Your task to perform on an android device: Search for usb-a on newegg.com, select the first entry, and add it to the cart. Image 0: 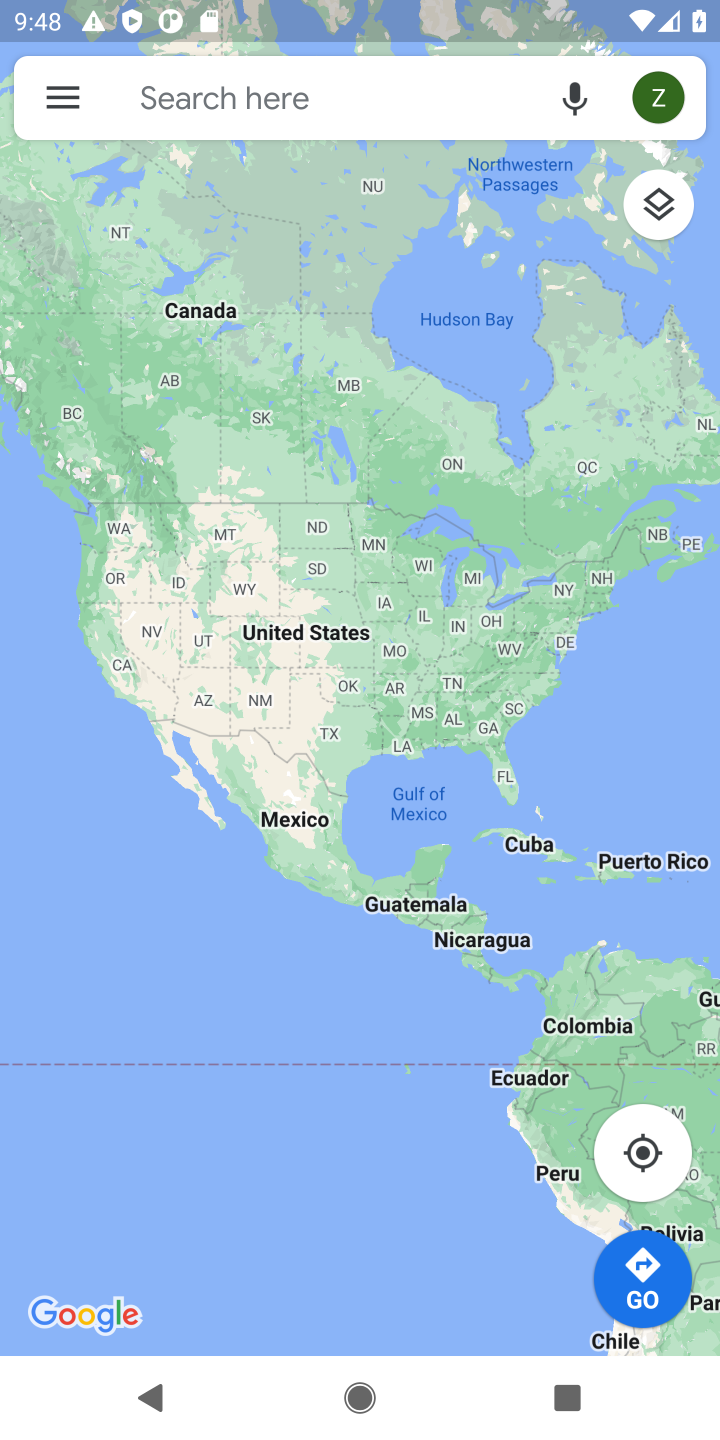
Step 0: press home button
Your task to perform on an android device: Search for usb-a on newegg.com, select the first entry, and add it to the cart. Image 1: 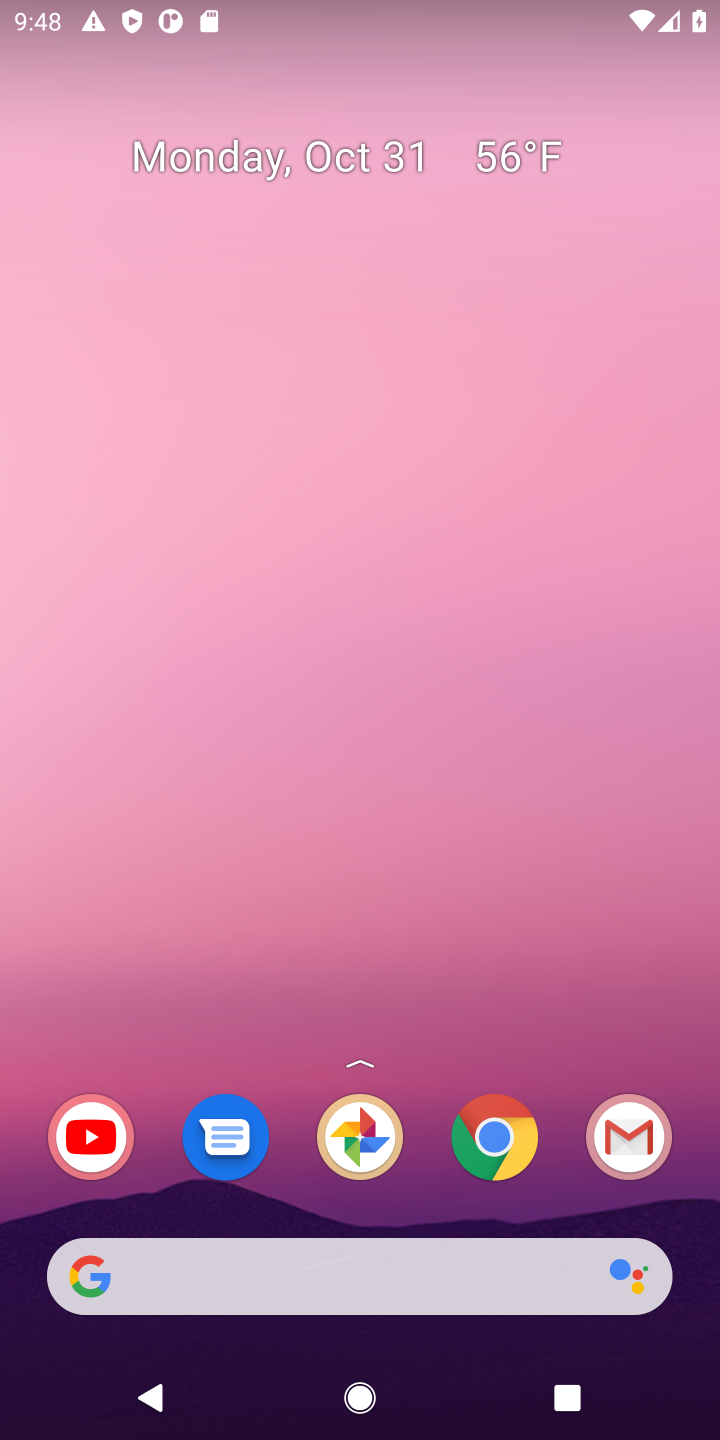
Step 1: click (495, 1138)
Your task to perform on an android device: Search for usb-a on newegg.com, select the first entry, and add it to the cart. Image 2: 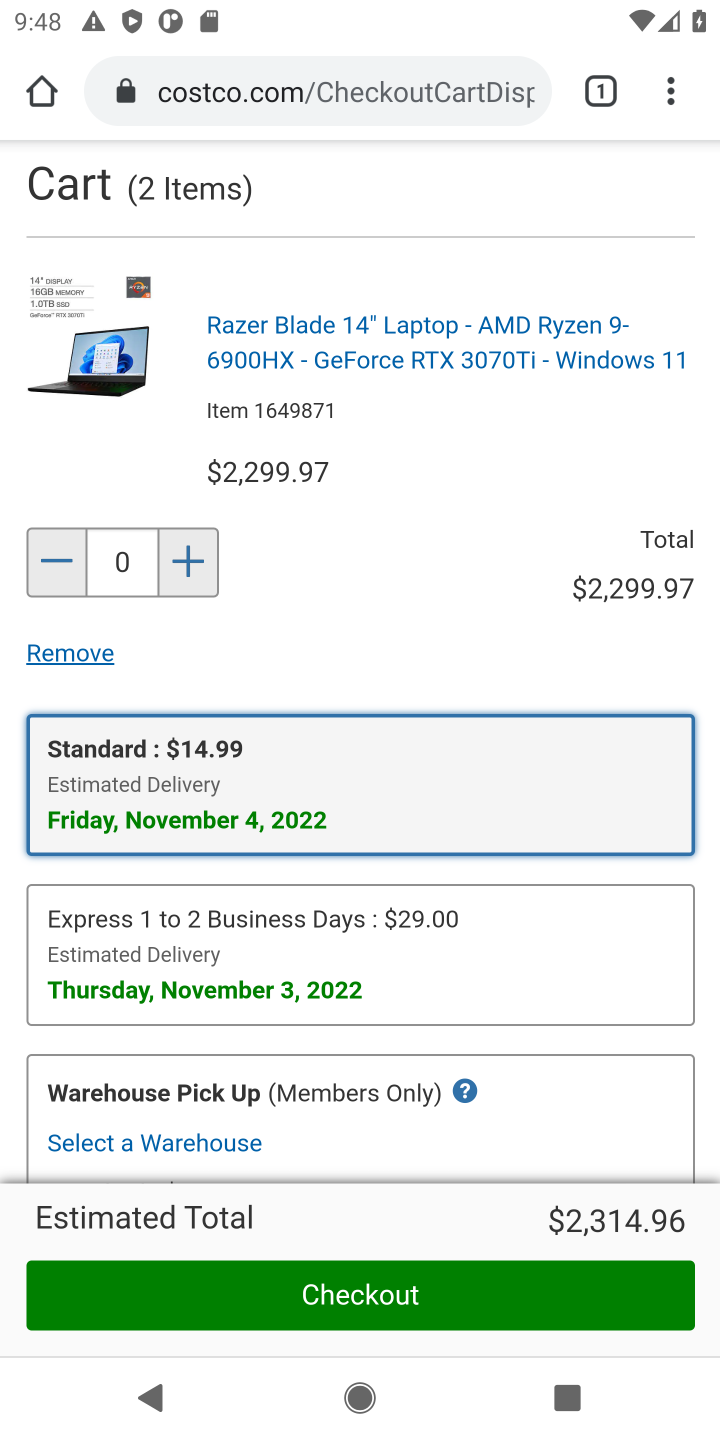
Step 2: click (255, 94)
Your task to perform on an android device: Search for usb-a on newegg.com, select the first entry, and add it to the cart. Image 3: 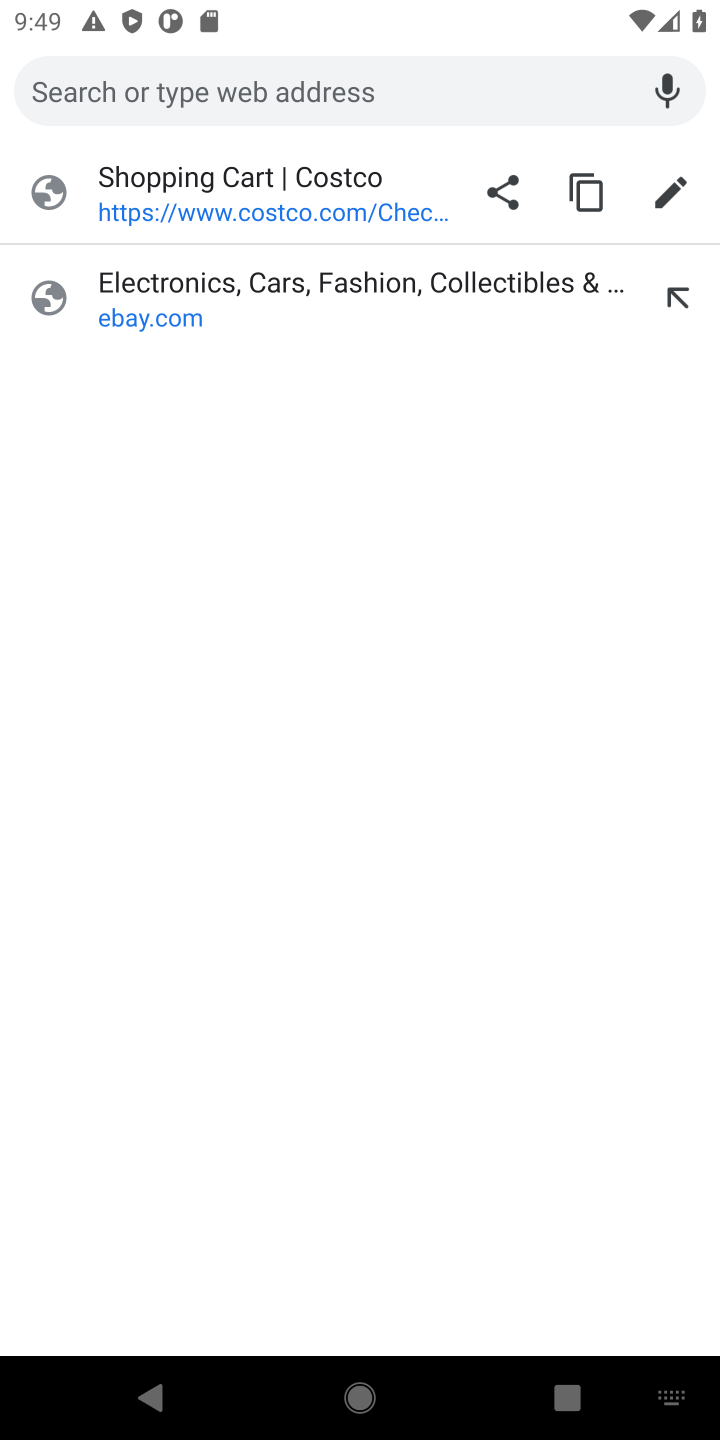
Step 3: type "newegg.com"
Your task to perform on an android device: Search for usb-a on newegg.com, select the first entry, and add it to the cart. Image 4: 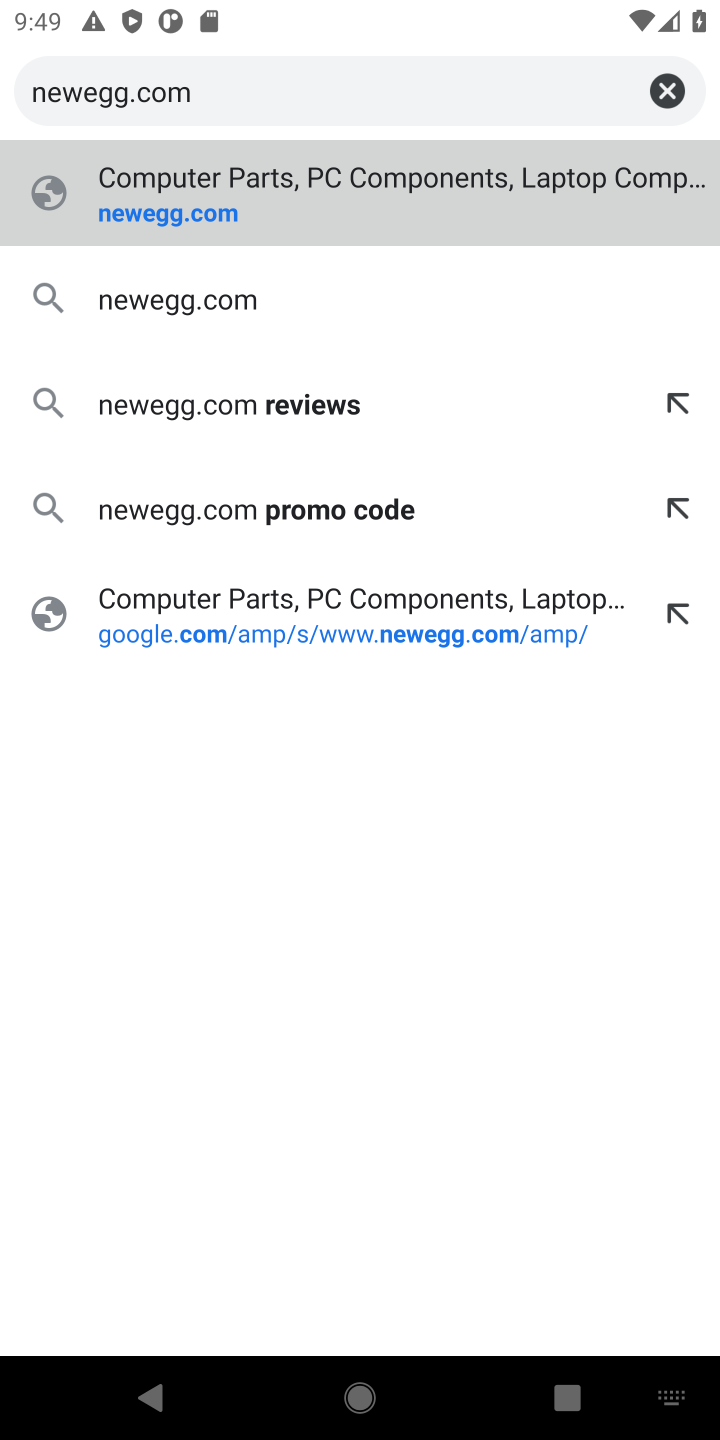
Step 4: click (155, 302)
Your task to perform on an android device: Search for usb-a on newegg.com, select the first entry, and add it to the cart. Image 5: 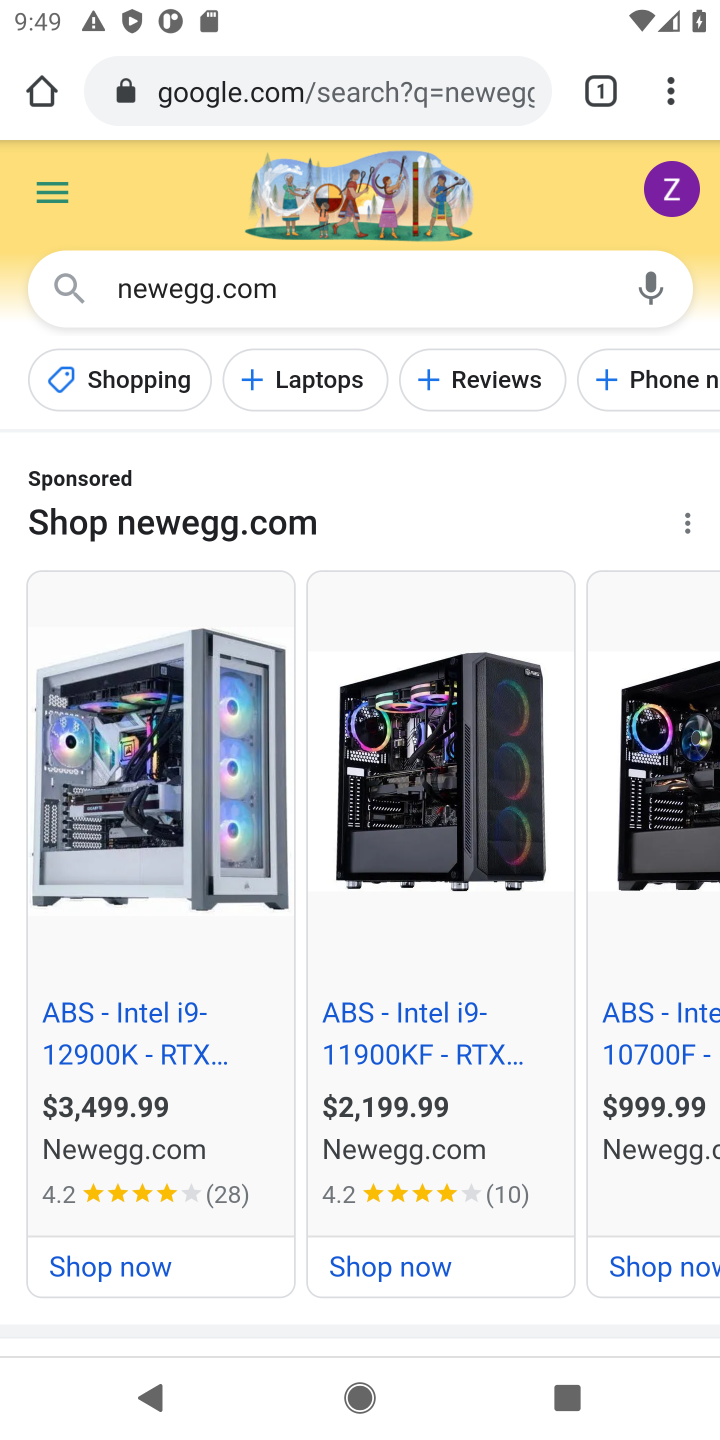
Step 5: drag from (305, 864) to (374, 245)
Your task to perform on an android device: Search for usb-a on newegg.com, select the first entry, and add it to the cart. Image 6: 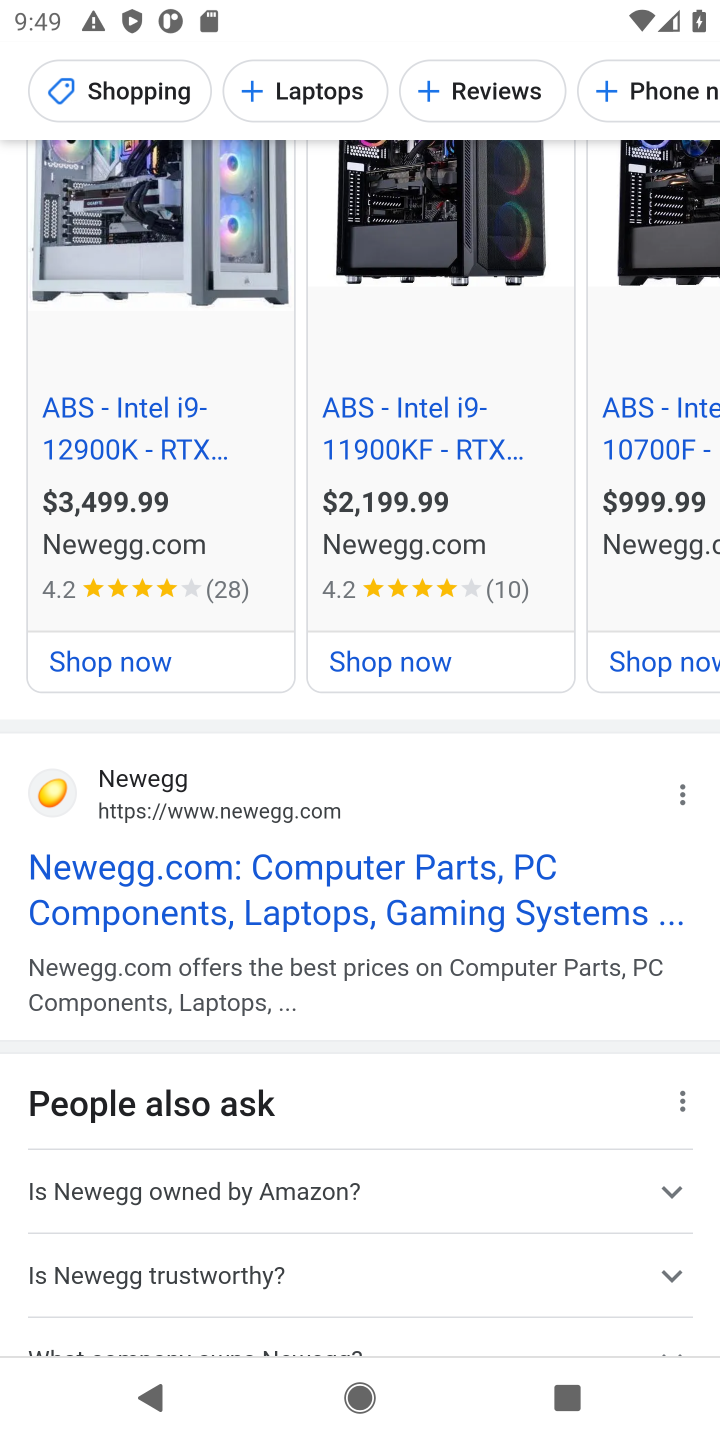
Step 6: click (294, 899)
Your task to perform on an android device: Search for usb-a on newegg.com, select the first entry, and add it to the cart. Image 7: 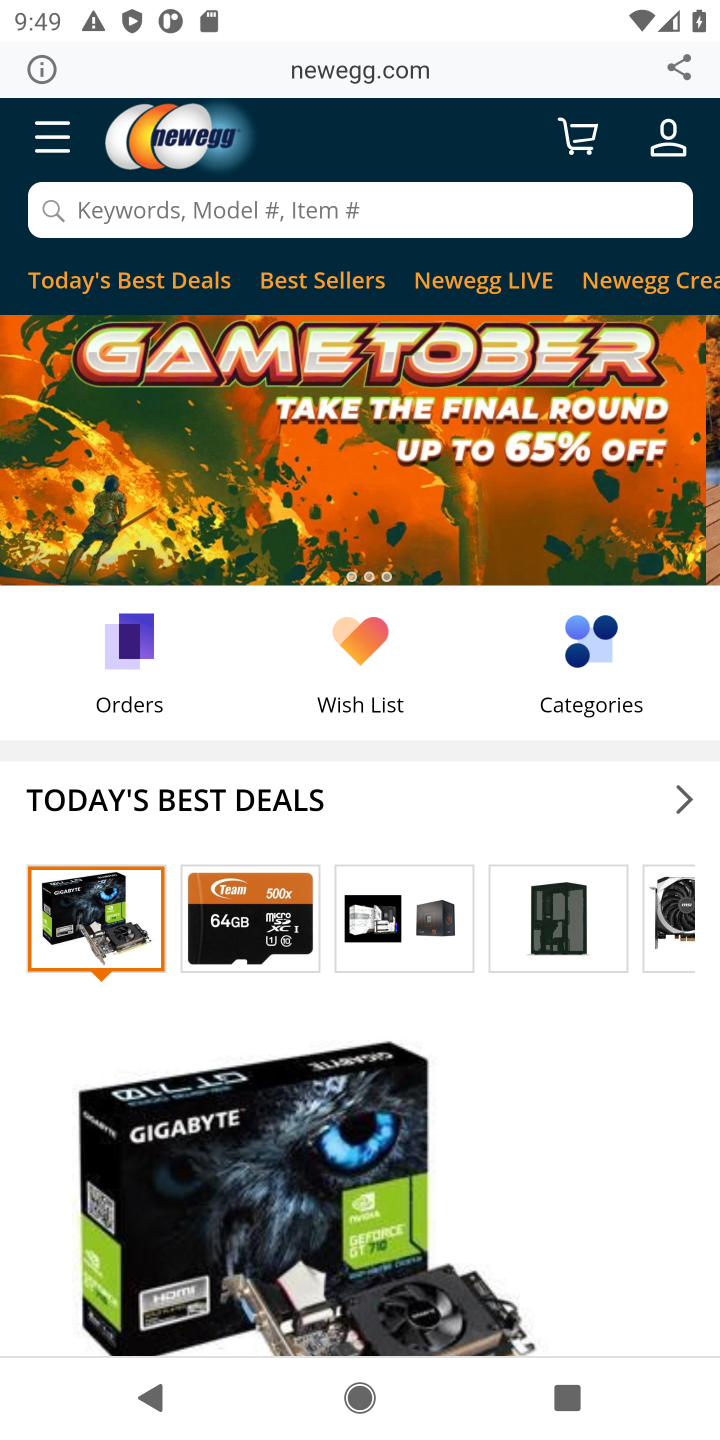
Step 7: click (367, 208)
Your task to perform on an android device: Search for usb-a on newegg.com, select the first entry, and add it to the cart. Image 8: 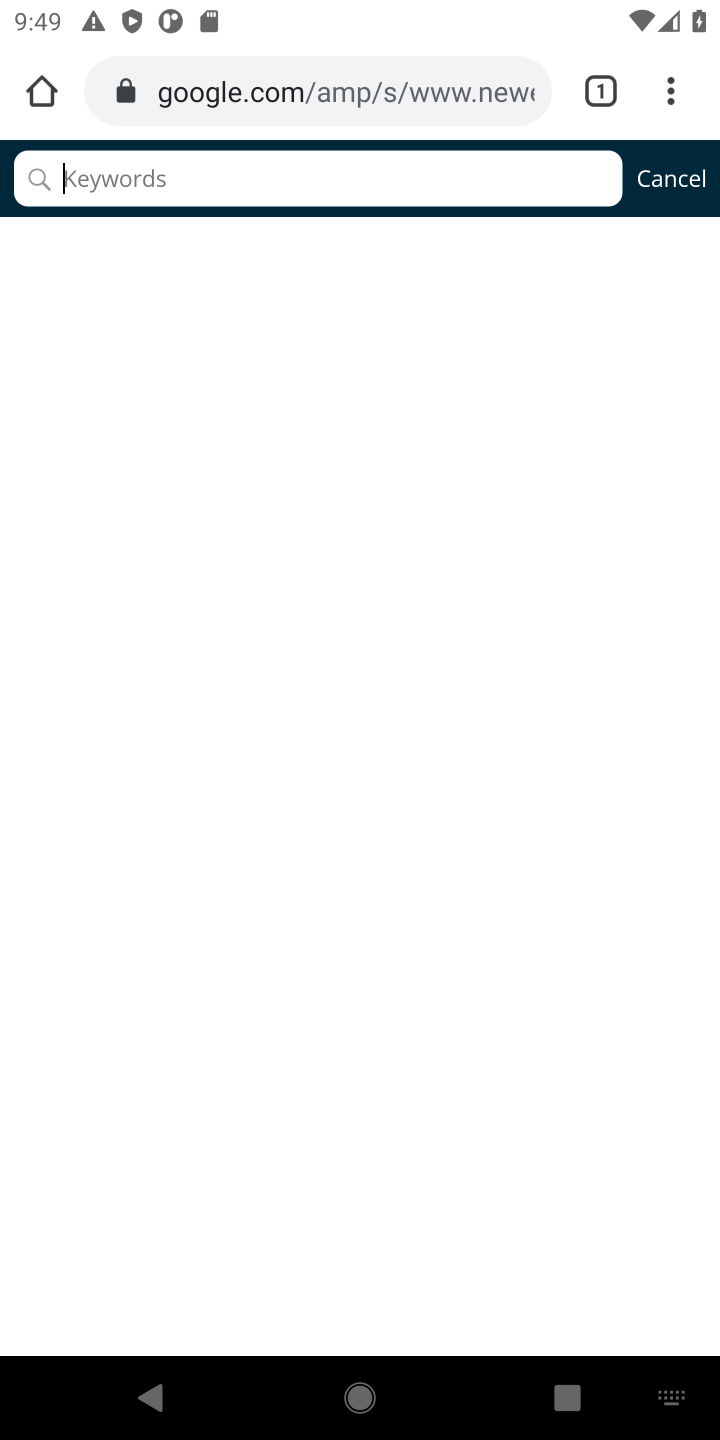
Step 8: type "usb - a"
Your task to perform on an android device: Search for usb-a on newegg.com, select the first entry, and add it to the cart. Image 9: 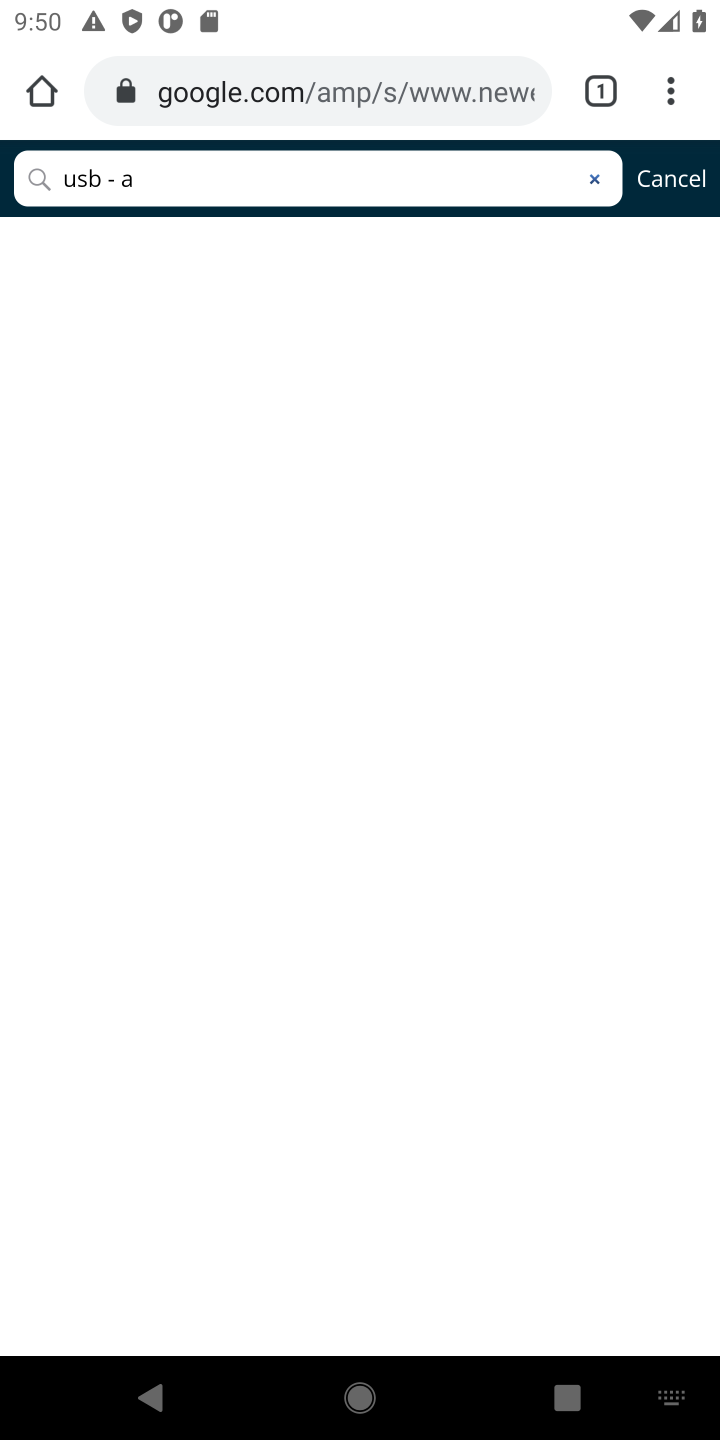
Step 9: click (27, 179)
Your task to perform on an android device: Search for usb-a on newegg.com, select the first entry, and add it to the cart. Image 10: 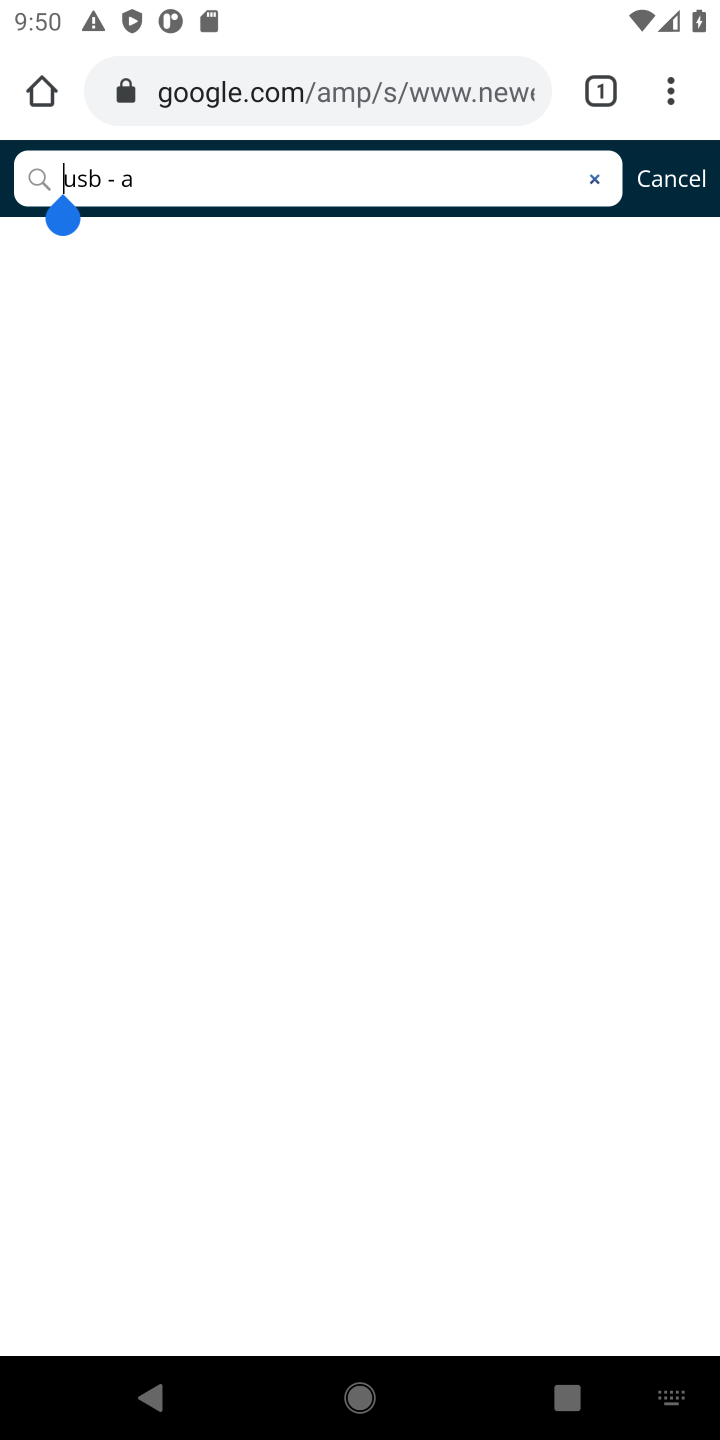
Step 10: click (35, 173)
Your task to perform on an android device: Search for usb-a on newegg.com, select the first entry, and add it to the cart. Image 11: 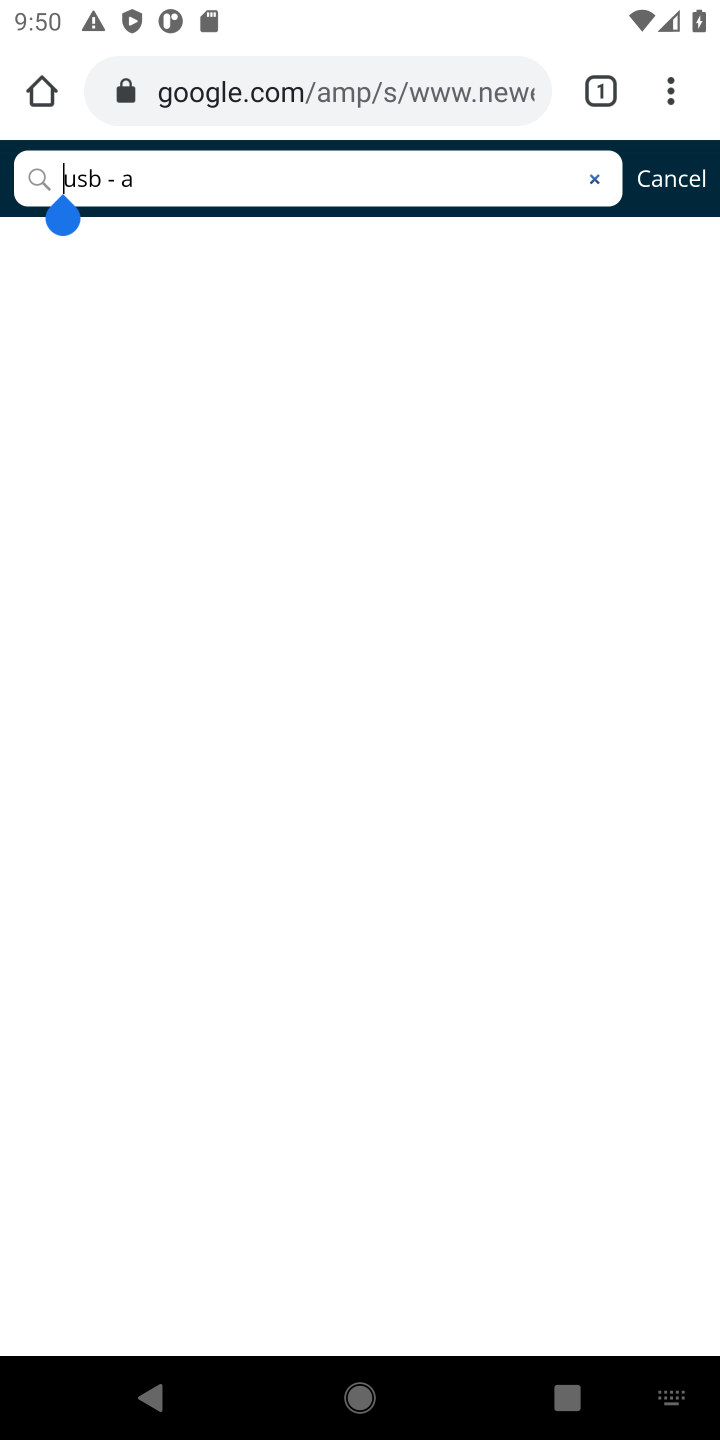
Step 11: task complete